Your task to perform on an android device: What's on my calendar tomorrow? Image 0: 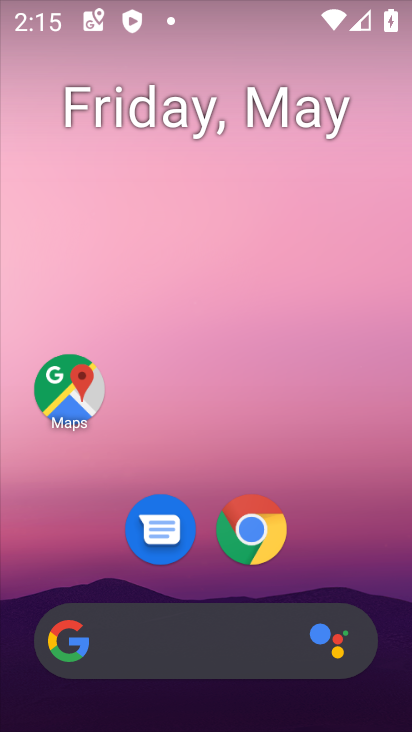
Step 0: drag from (378, 551) to (295, 115)
Your task to perform on an android device: What's on my calendar tomorrow? Image 1: 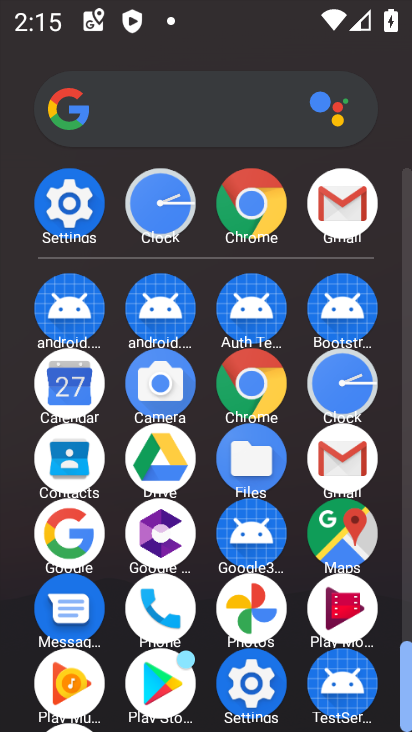
Step 1: click (91, 377)
Your task to perform on an android device: What's on my calendar tomorrow? Image 2: 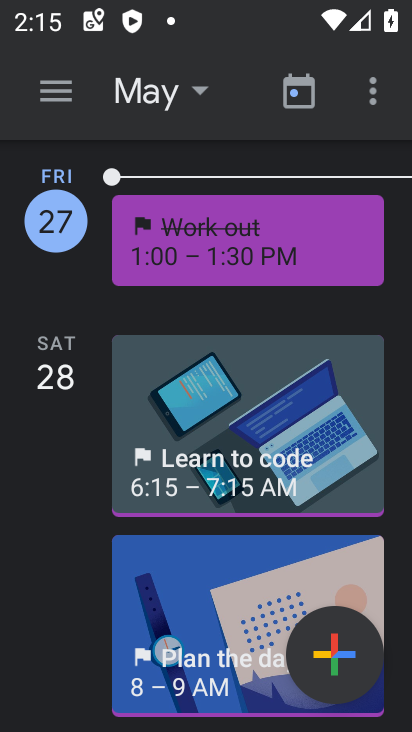
Step 2: task complete